Your task to perform on an android device: Go to notification settings Image 0: 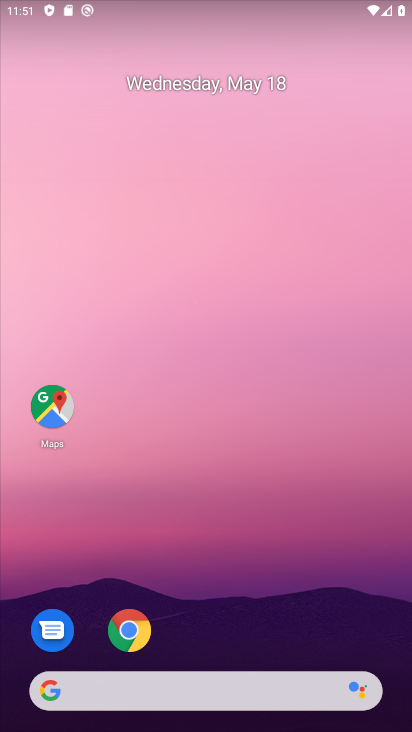
Step 0: drag from (301, 608) to (164, 235)
Your task to perform on an android device: Go to notification settings Image 1: 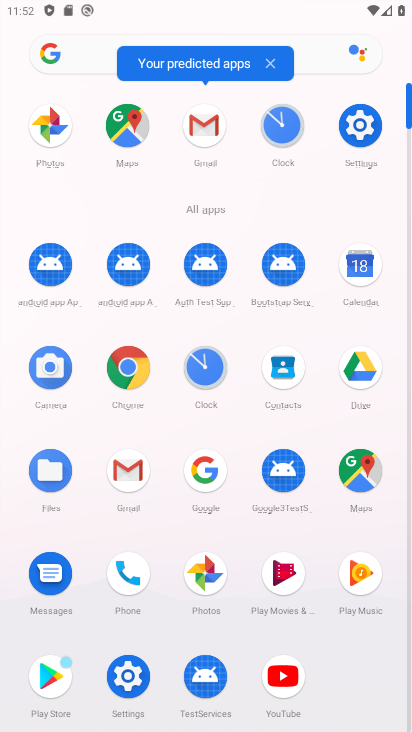
Step 1: click (363, 156)
Your task to perform on an android device: Go to notification settings Image 2: 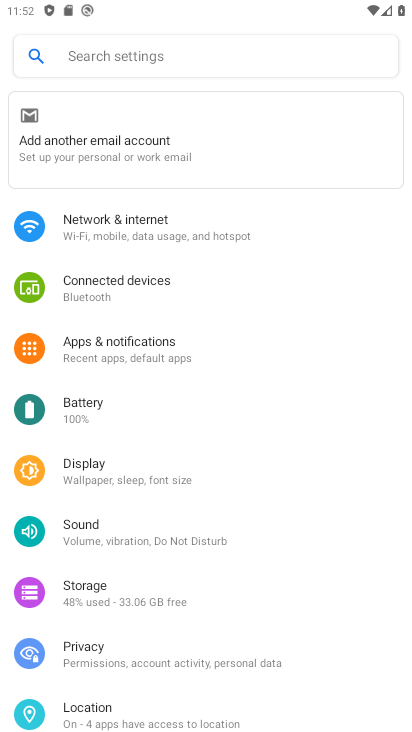
Step 2: click (103, 351)
Your task to perform on an android device: Go to notification settings Image 3: 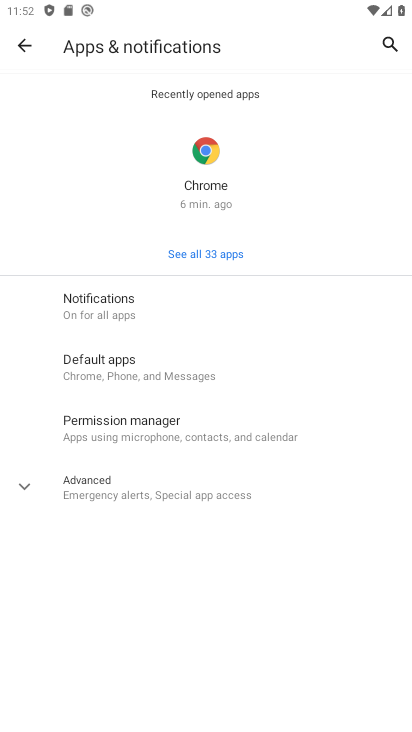
Step 3: click (98, 309)
Your task to perform on an android device: Go to notification settings Image 4: 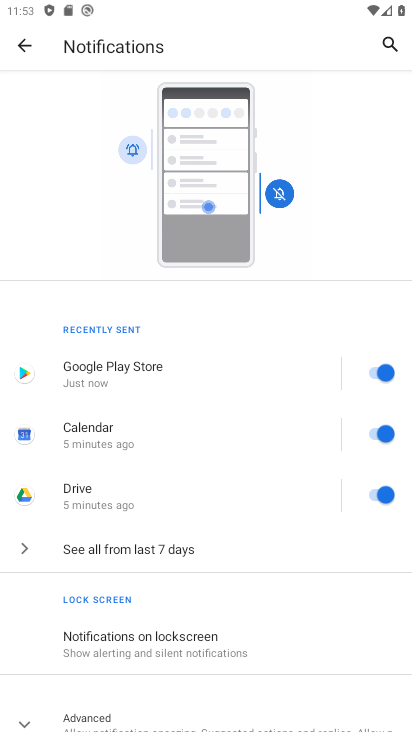
Step 4: task complete